Your task to perform on an android device: turn off location Image 0: 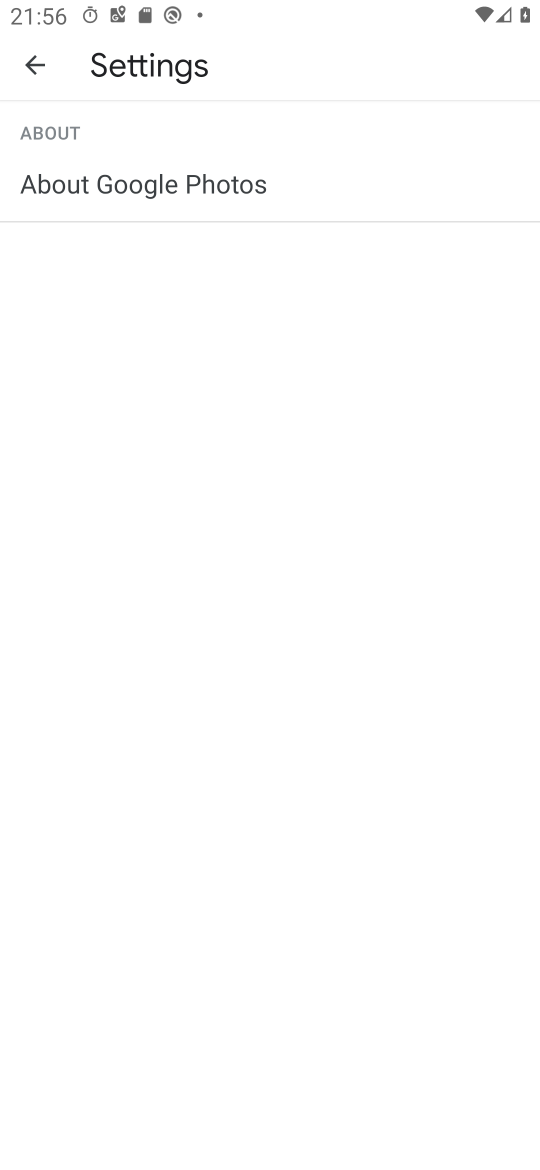
Step 0: press home button
Your task to perform on an android device: turn off location Image 1: 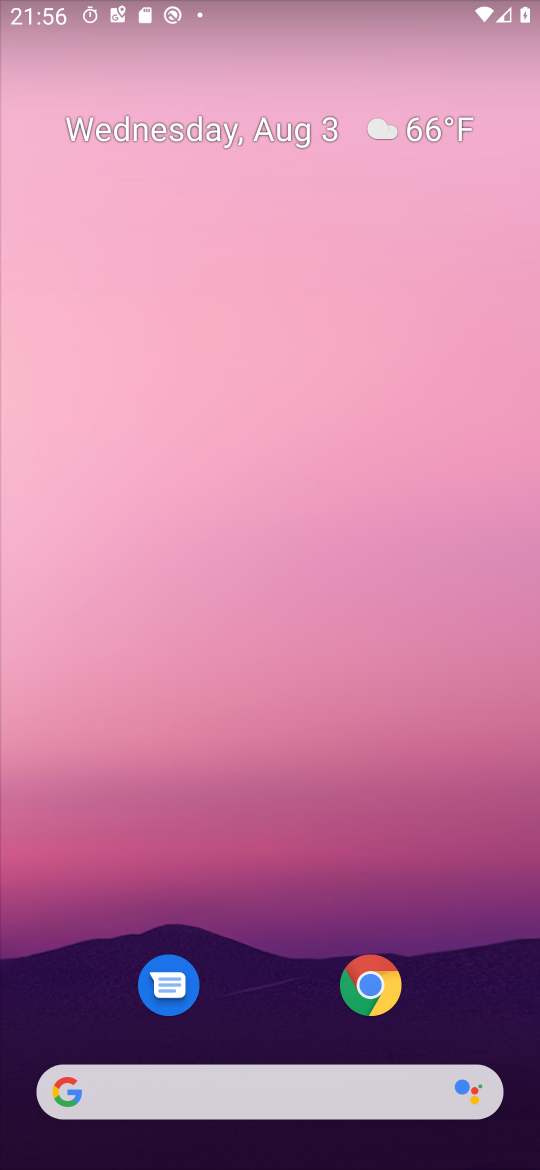
Step 1: drag from (276, 989) to (250, 186)
Your task to perform on an android device: turn off location Image 2: 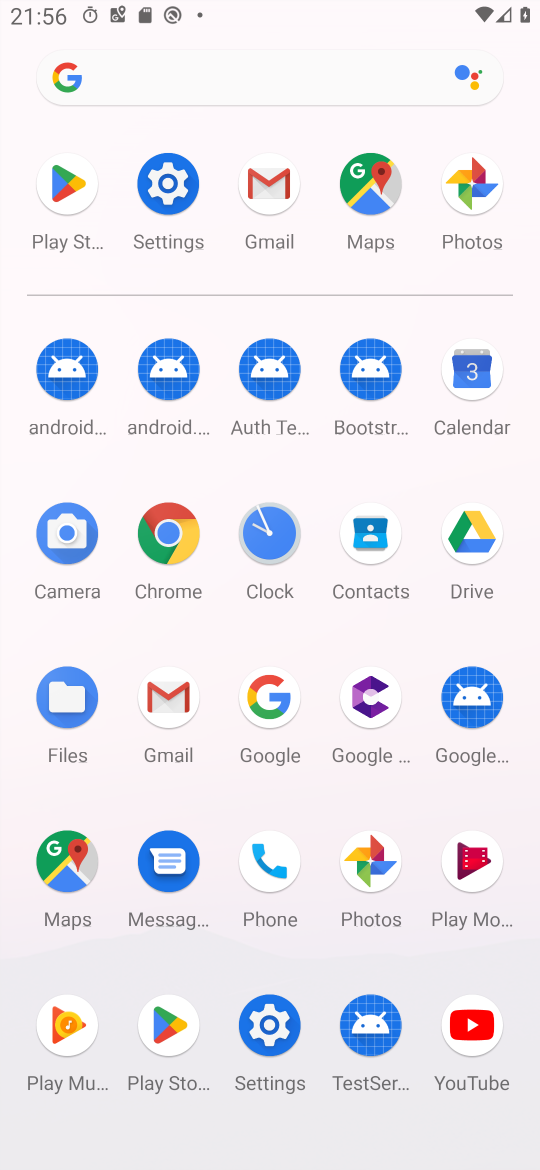
Step 2: click (162, 202)
Your task to perform on an android device: turn off location Image 3: 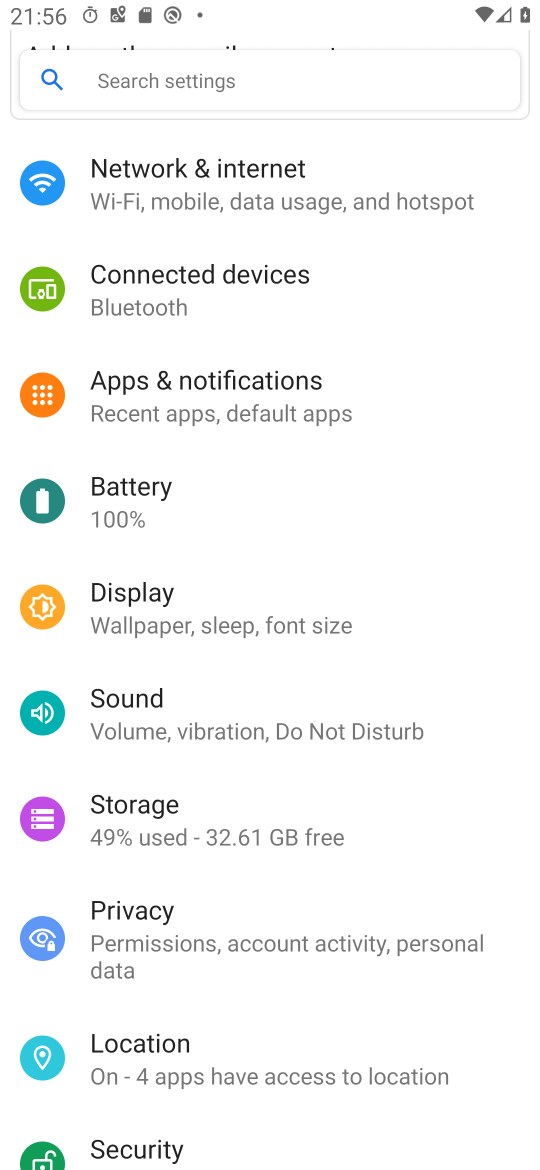
Step 3: click (270, 1042)
Your task to perform on an android device: turn off location Image 4: 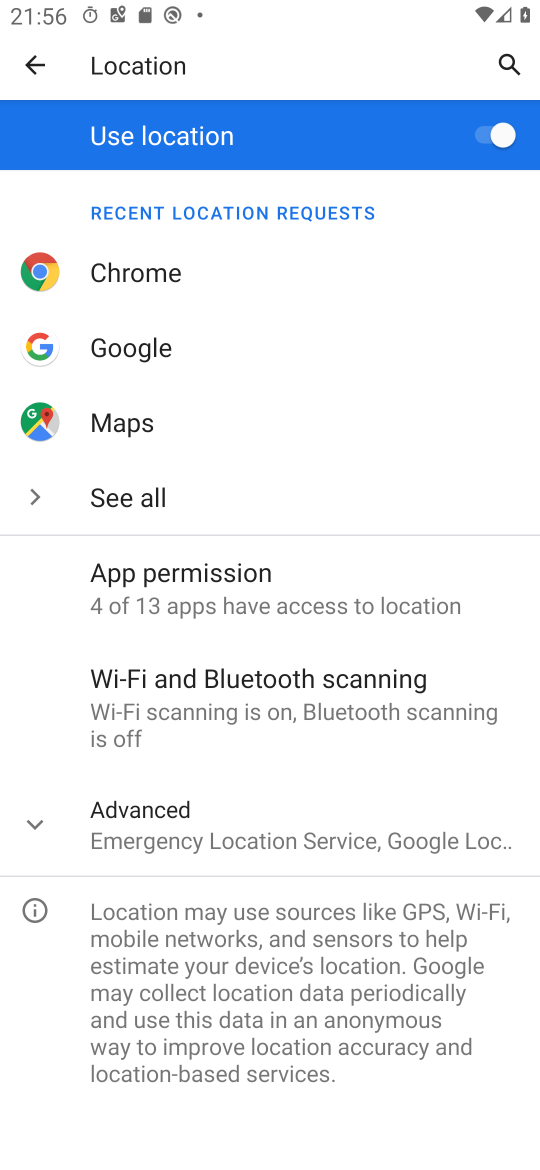
Step 4: click (471, 138)
Your task to perform on an android device: turn off location Image 5: 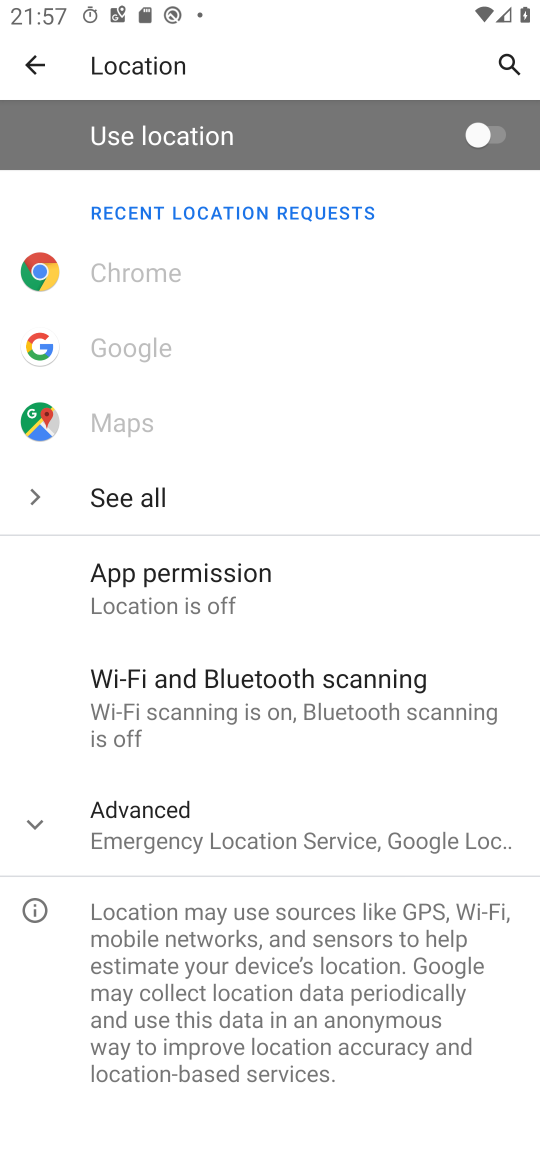
Step 5: task complete